Your task to perform on an android device: change the clock display to digital Image 0: 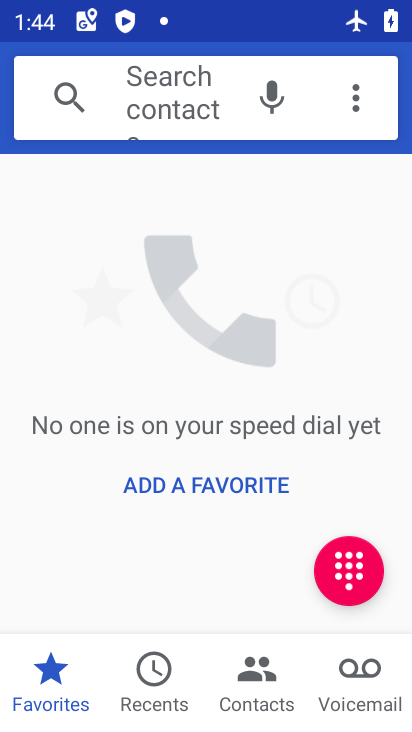
Step 0: press home button
Your task to perform on an android device: change the clock display to digital Image 1: 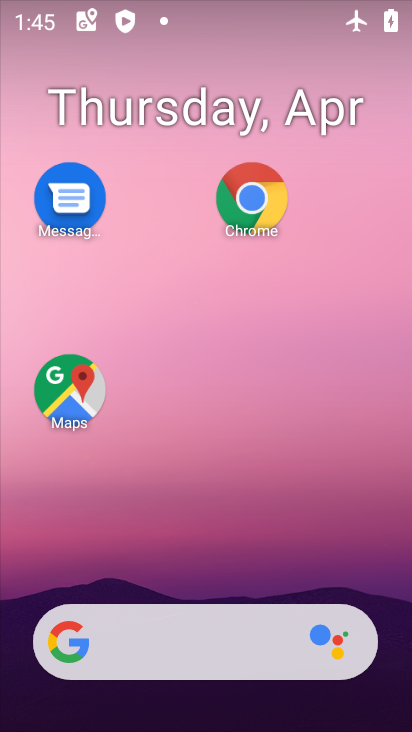
Step 1: drag from (170, 560) to (89, 84)
Your task to perform on an android device: change the clock display to digital Image 2: 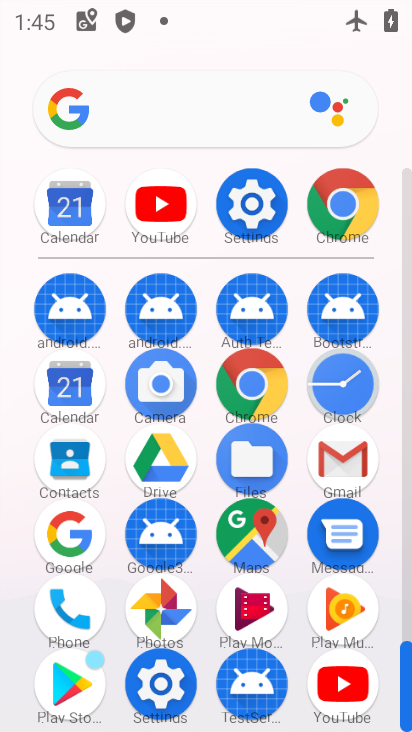
Step 2: click (347, 392)
Your task to perform on an android device: change the clock display to digital Image 3: 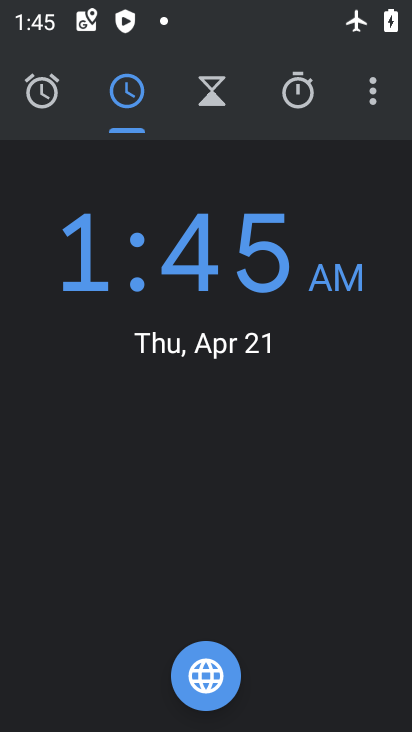
Step 3: click (377, 105)
Your task to perform on an android device: change the clock display to digital Image 4: 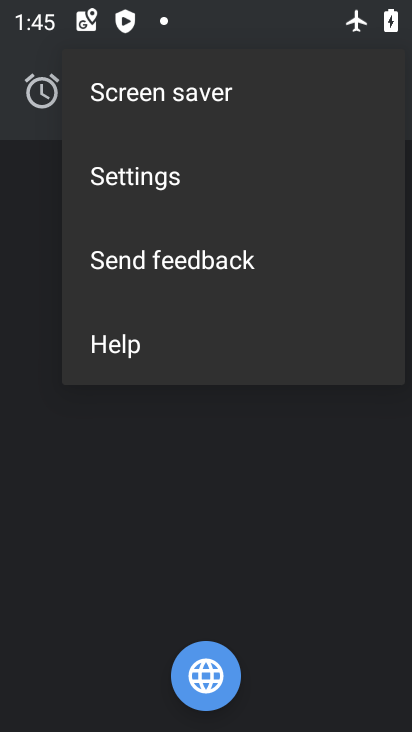
Step 4: click (153, 192)
Your task to perform on an android device: change the clock display to digital Image 5: 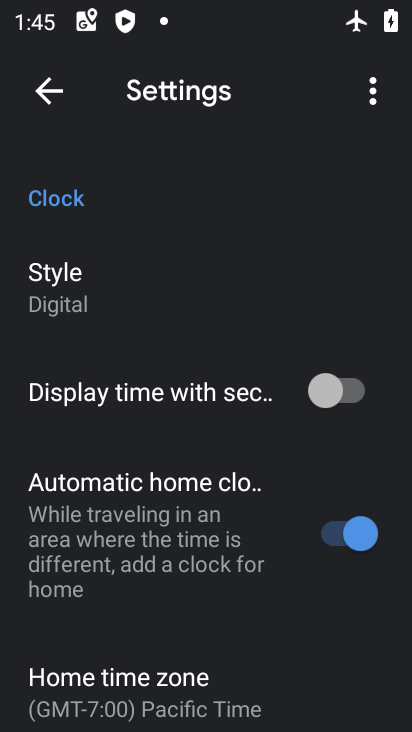
Step 5: task complete